Your task to perform on an android device: What's the weather today? Image 0: 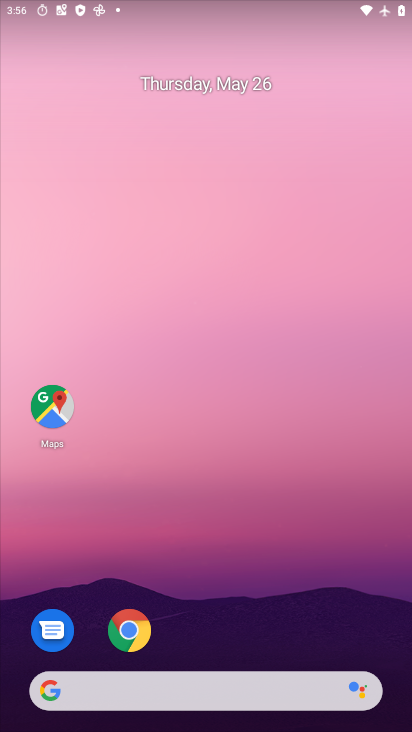
Step 0: drag from (370, 647) to (168, 16)
Your task to perform on an android device: What's the weather today? Image 1: 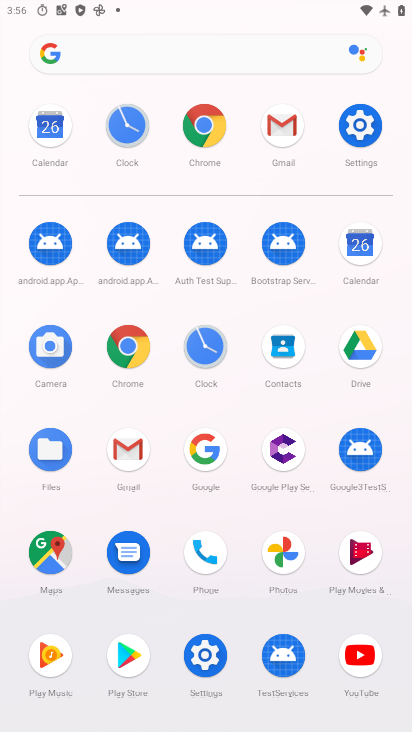
Step 1: click (273, 563)
Your task to perform on an android device: What's the weather today? Image 2: 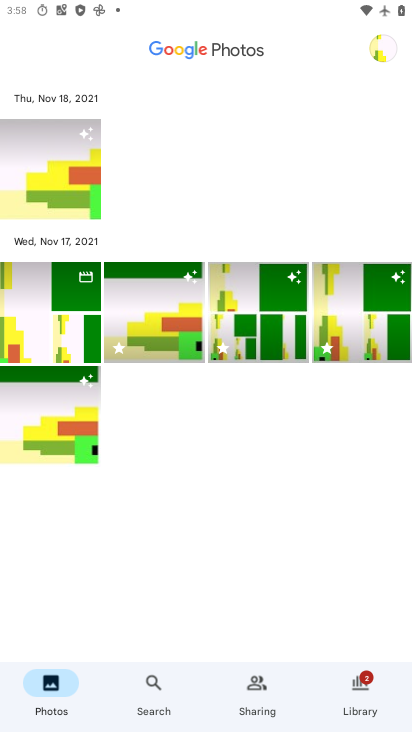
Step 2: press home button
Your task to perform on an android device: What's the weather today? Image 3: 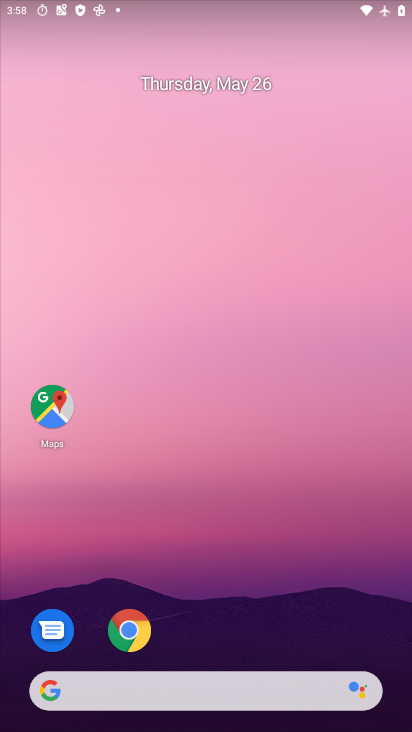
Step 3: drag from (239, 634) to (161, 40)
Your task to perform on an android device: What's the weather today? Image 4: 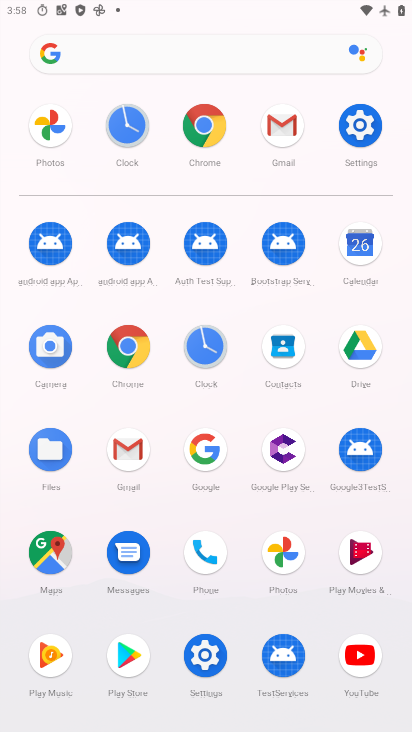
Step 4: drag from (161, 621) to (136, 384)
Your task to perform on an android device: What's the weather today? Image 5: 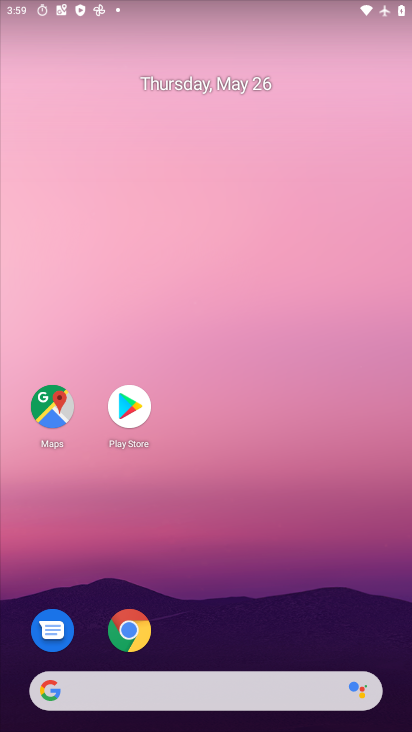
Step 5: click (199, 697)
Your task to perform on an android device: What's the weather today? Image 6: 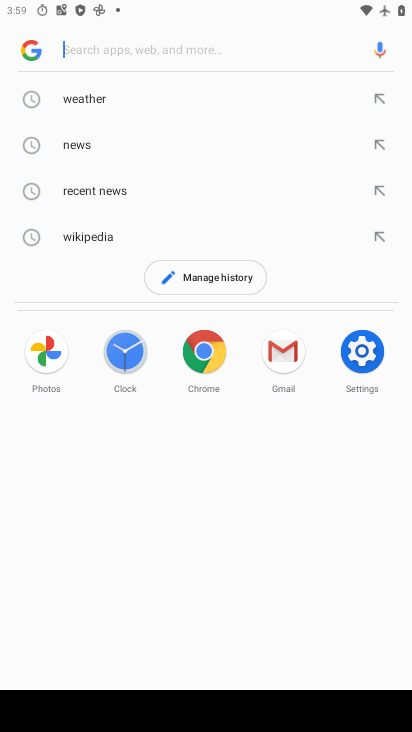
Step 6: click (117, 100)
Your task to perform on an android device: What's the weather today? Image 7: 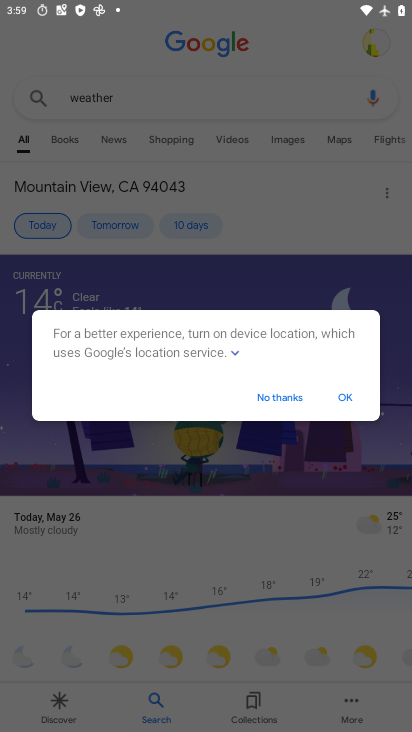
Step 7: click (343, 399)
Your task to perform on an android device: What's the weather today? Image 8: 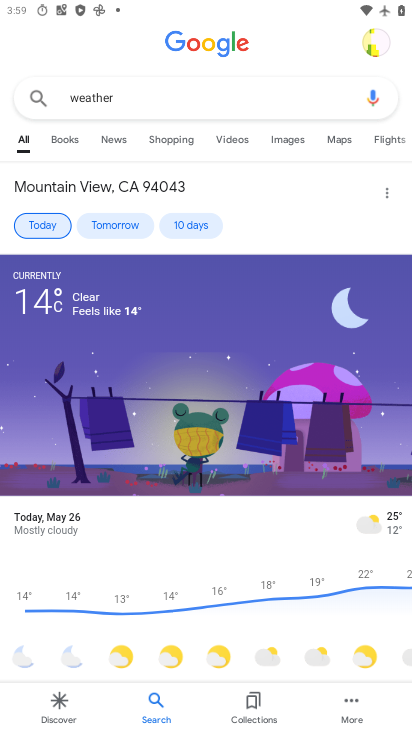
Step 8: task complete